Your task to perform on an android device: turn off location history Image 0: 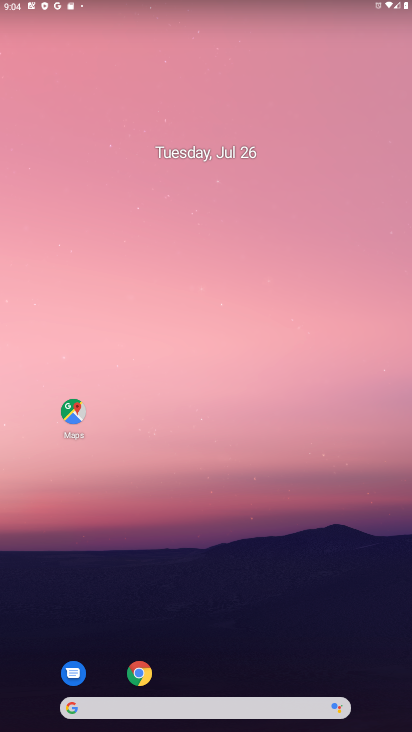
Step 0: drag from (262, 635) to (287, 179)
Your task to perform on an android device: turn off location history Image 1: 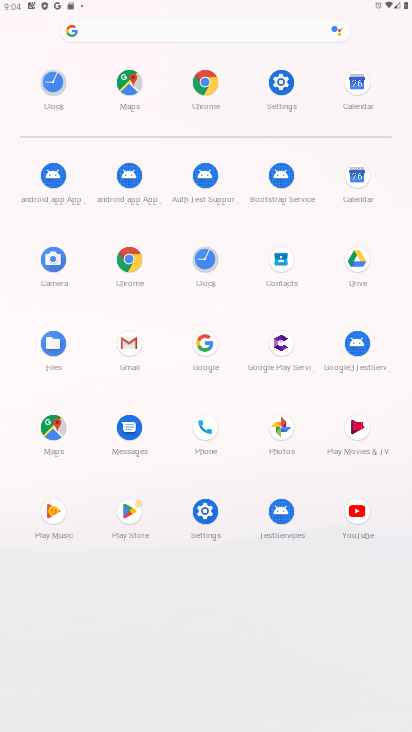
Step 1: drag from (206, 429) to (165, 126)
Your task to perform on an android device: turn off location history Image 2: 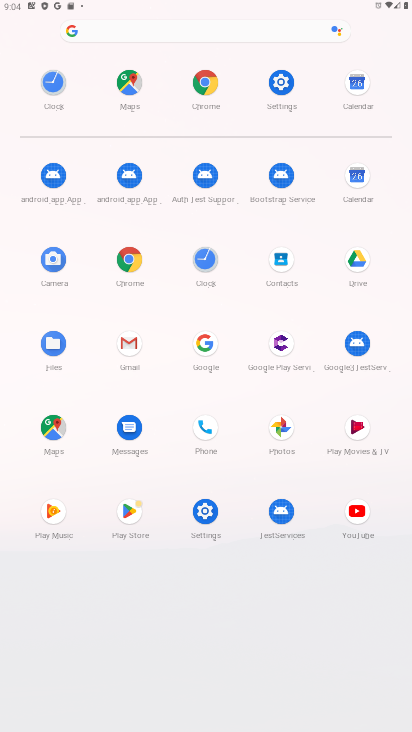
Step 2: click (199, 509)
Your task to perform on an android device: turn off location history Image 3: 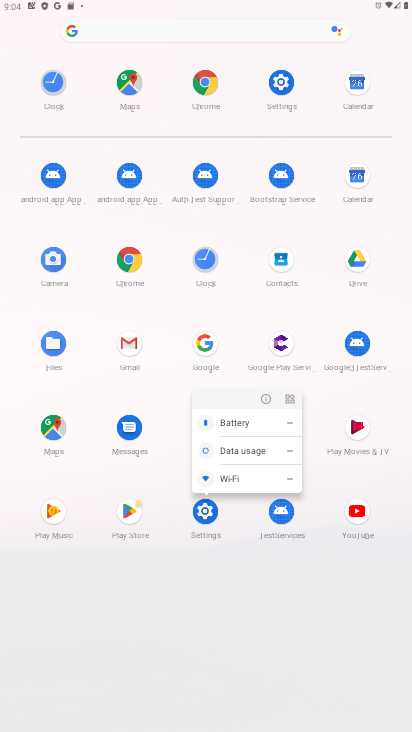
Step 3: click (200, 505)
Your task to perform on an android device: turn off location history Image 4: 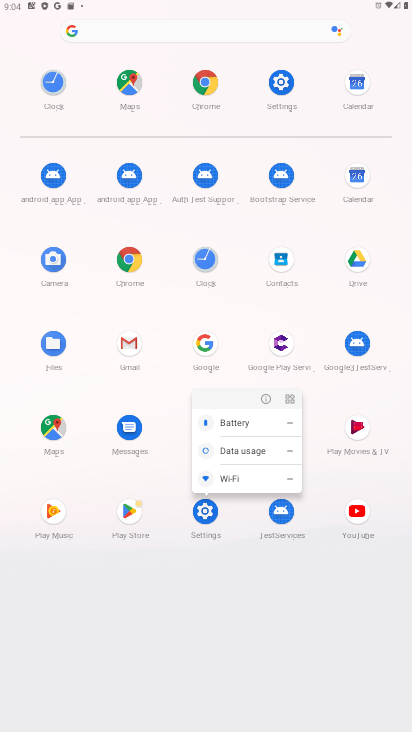
Step 4: click (200, 505)
Your task to perform on an android device: turn off location history Image 5: 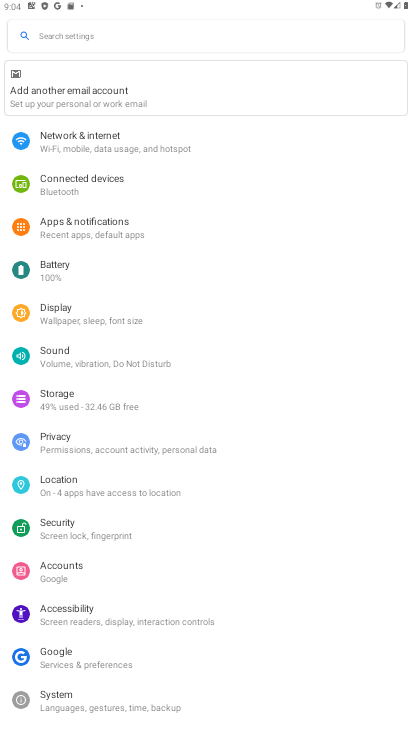
Step 5: drag from (49, 376) to (48, 273)
Your task to perform on an android device: turn off location history Image 6: 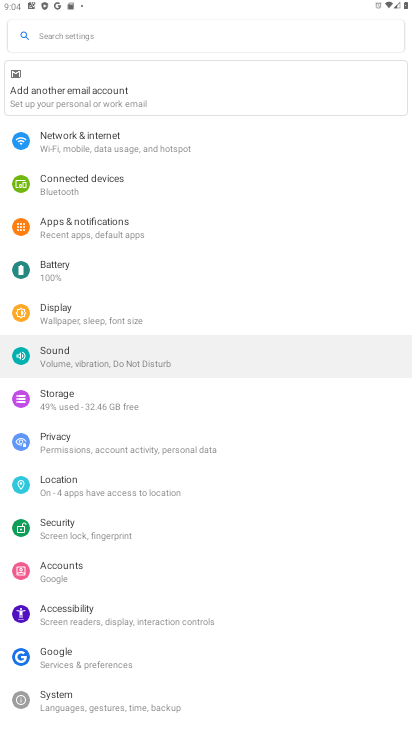
Step 6: drag from (64, 676) to (11, 318)
Your task to perform on an android device: turn off location history Image 7: 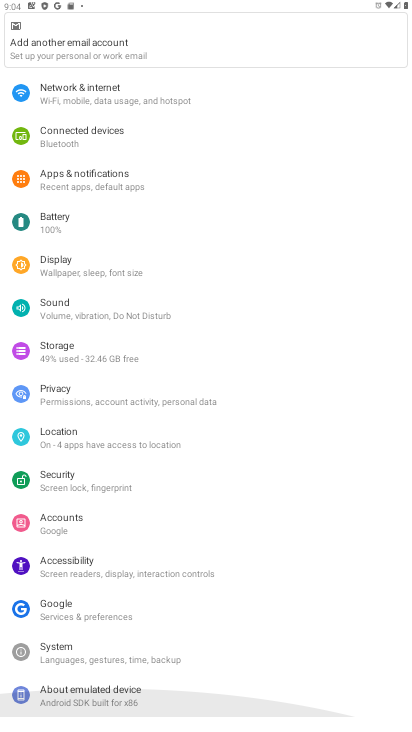
Step 7: drag from (115, 546) to (117, 328)
Your task to perform on an android device: turn off location history Image 8: 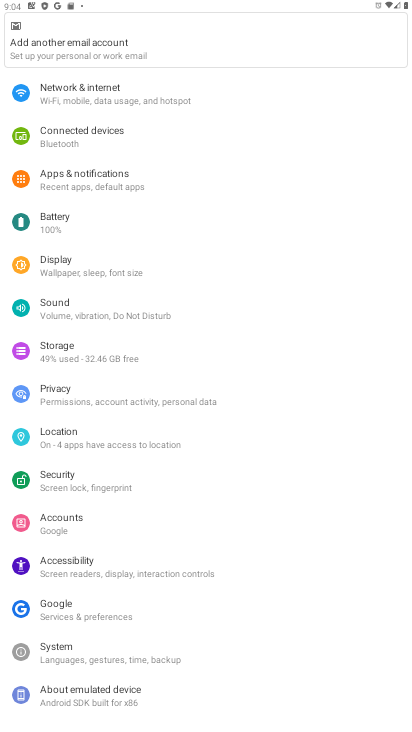
Step 8: click (61, 436)
Your task to perform on an android device: turn off location history Image 9: 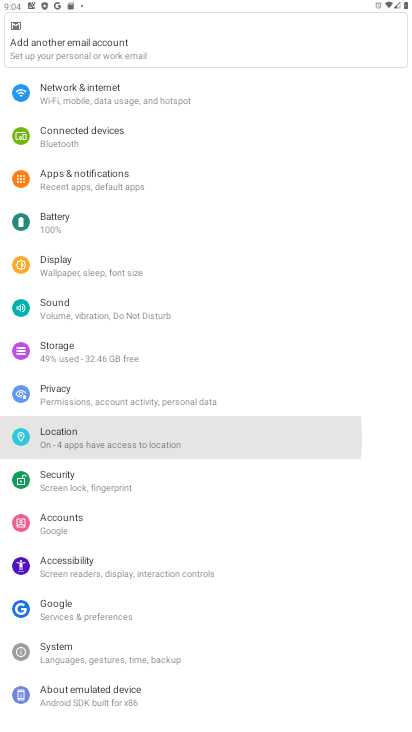
Step 9: click (62, 435)
Your task to perform on an android device: turn off location history Image 10: 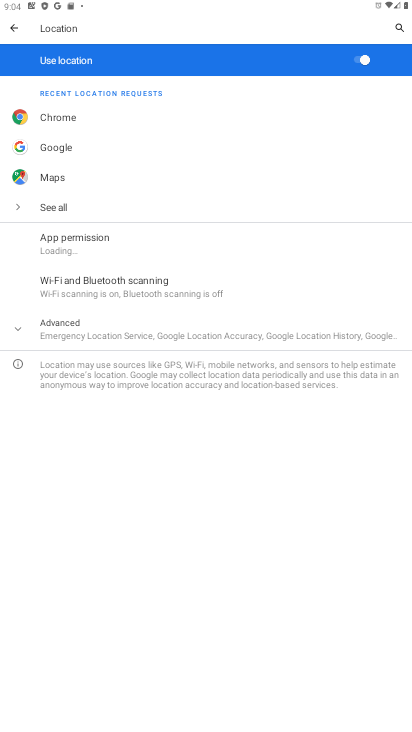
Step 10: click (66, 333)
Your task to perform on an android device: turn off location history Image 11: 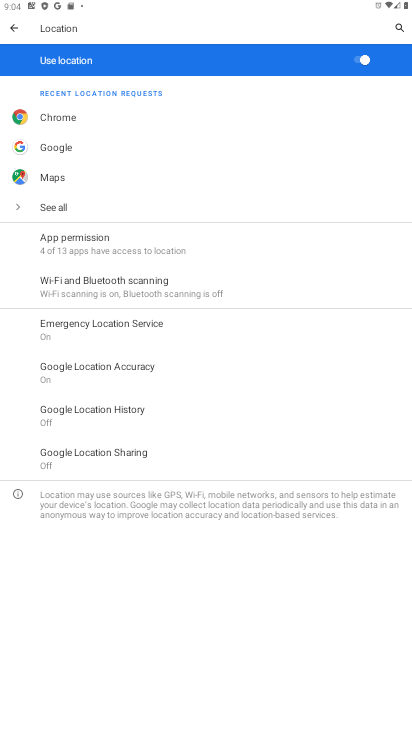
Step 11: click (55, 411)
Your task to perform on an android device: turn off location history Image 12: 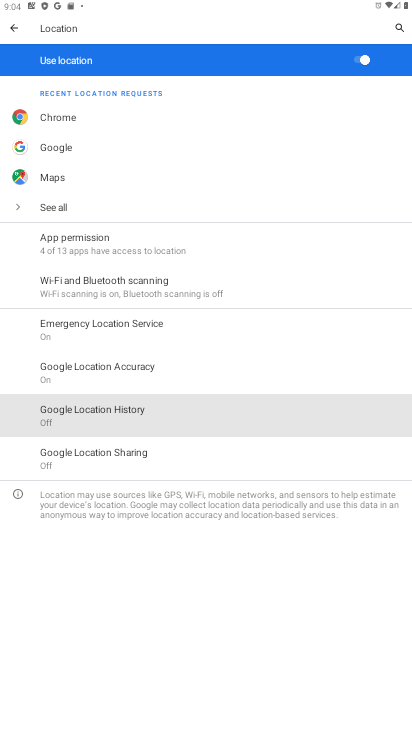
Step 12: task complete